Your task to perform on an android device: toggle wifi Image 0: 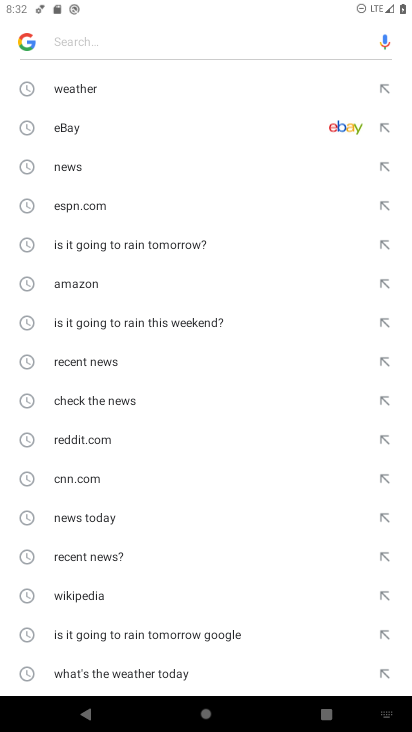
Step 0: press home button
Your task to perform on an android device: toggle wifi Image 1: 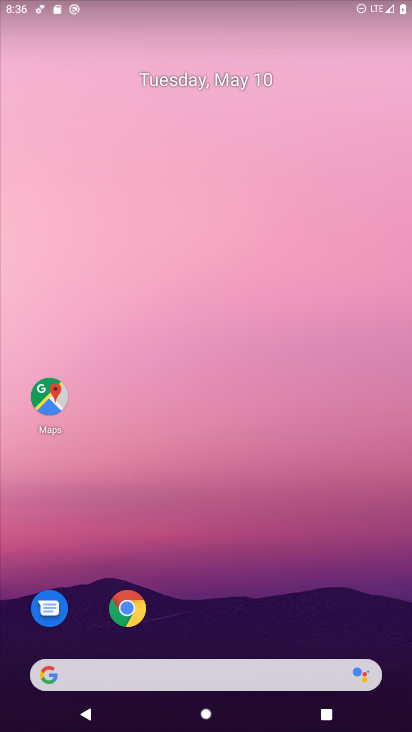
Step 1: drag from (230, 20) to (226, 540)
Your task to perform on an android device: toggle wifi Image 2: 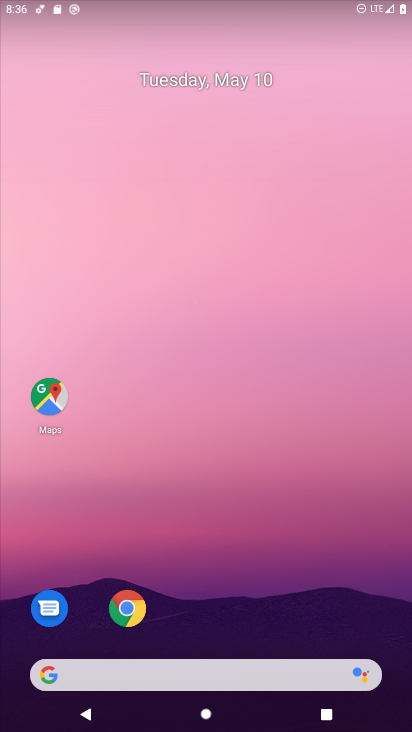
Step 2: drag from (118, 0) to (115, 567)
Your task to perform on an android device: toggle wifi Image 3: 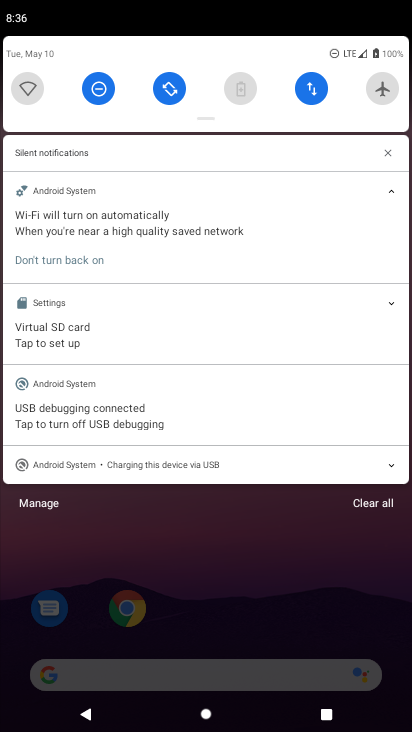
Step 3: click (27, 94)
Your task to perform on an android device: toggle wifi Image 4: 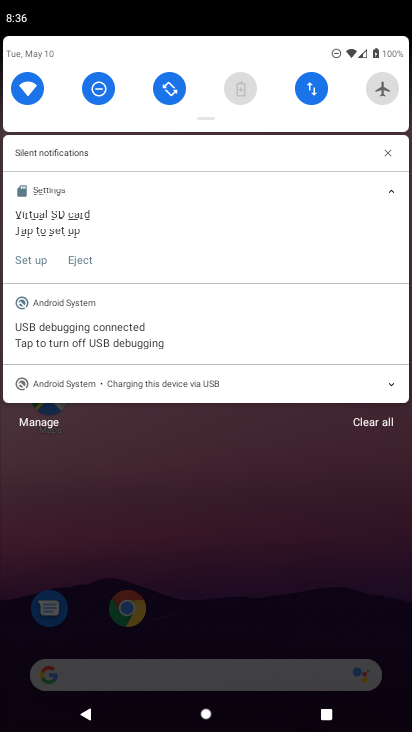
Step 4: task complete